Your task to perform on an android device: find which apps use the phone's location Image 0: 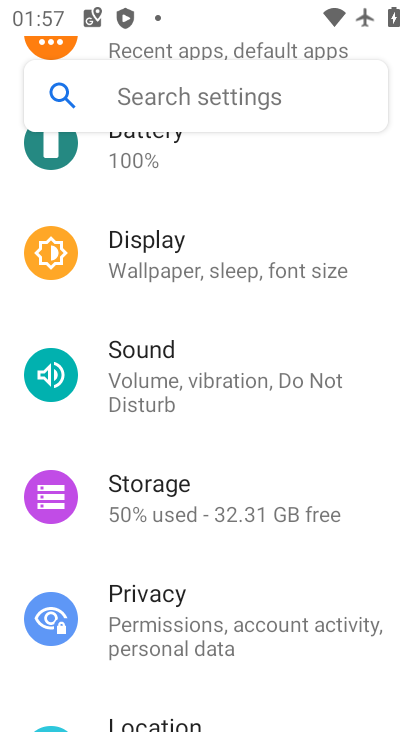
Step 0: press home button
Your task to perform on an android device: find which apps use the phone's location Image 1: 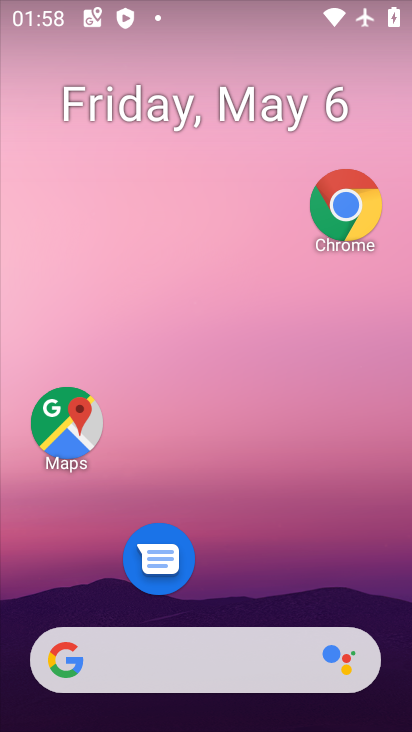
Step 1: drag from (209, 671) to (293, 34)
Your task to perform on an android device: find which apps use the phone's location Image 2: 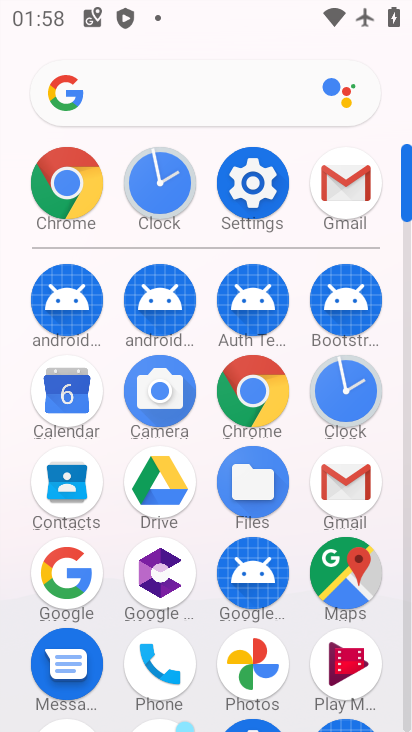
Step 2: click (253, 178)
Your task to perform on an android device: find which apps use the phone's location Image 3: 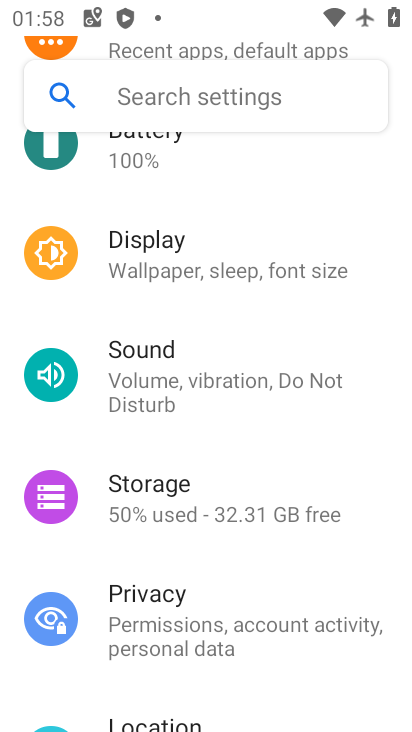
Step 3: drag from (135, 581) to (248, 193)
Your task to perform on an android device: find which apps use the phone's location Image 4: 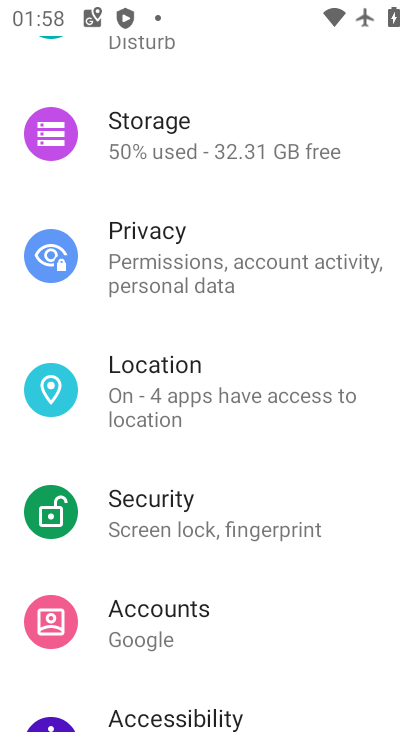
Step 4: click (159, 368)
Your task to perform on an android device: find which apps use the phone's location Image 5: 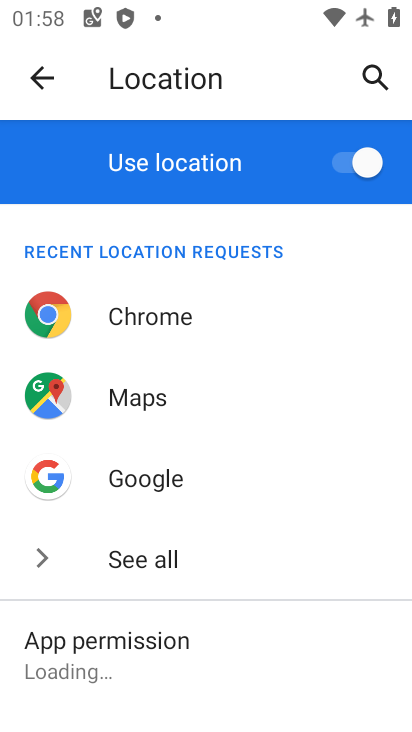
Step 5: drag from (193, 673) to (268, 177)
Your task to perform on an android device: find which apps use the phone's location Image 6: 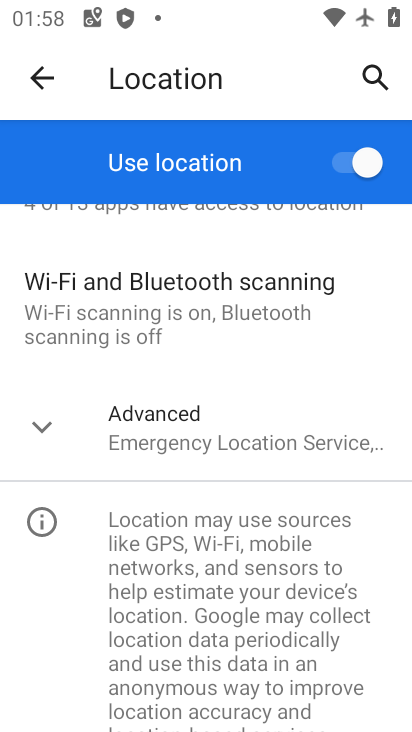
Step 6: drag from (245, 222) to (230, 575)
Your task to perform on an android device: find which apps use the phone's location Image 7: 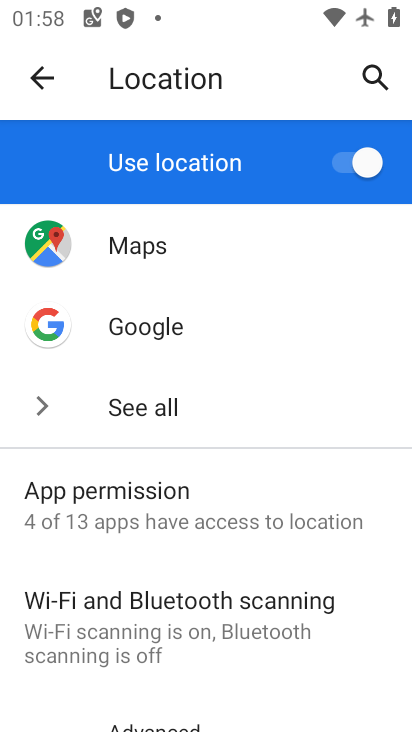
Step 7: click (157, 496)
Your task to perform on an android device: find which apps use the phone's location Image 8: 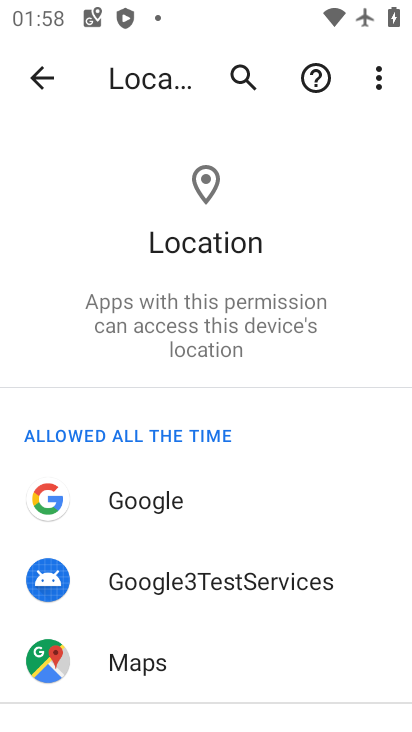
Step 8: drag from (201, 638) to (292, 168)
Your task to perform on an android device: find which apps use the phone's location Image 9: 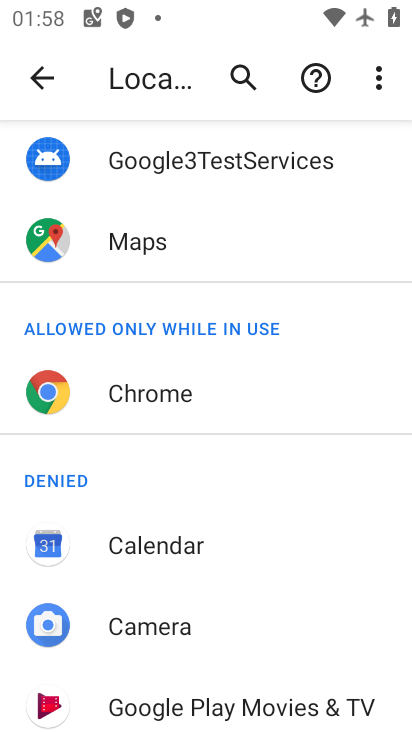
Step 9: drag from (217, 648) to (324, 137)
Your task to perform on an android device: find which apps use the phone's location Image 10: 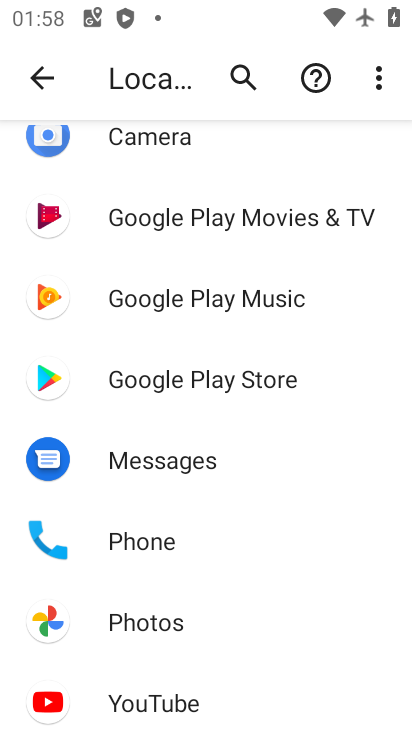
Step 10: click (176, 540)
Your task to perform on an android device: find which apps use the phone's location Image 11: 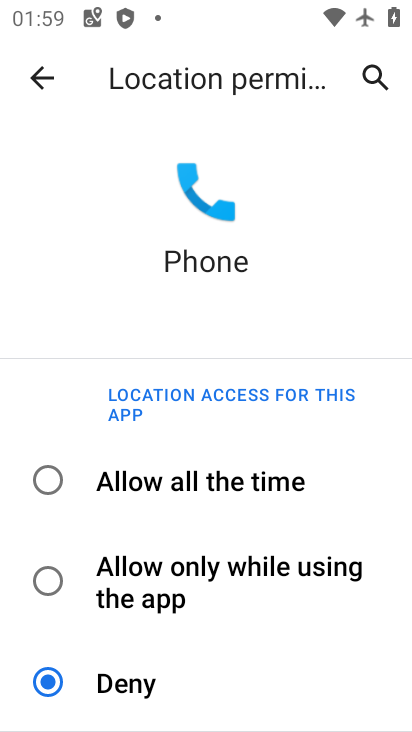
Step 11: task complete